Your task to perform on an android device: Open ESPN.com Image 0: 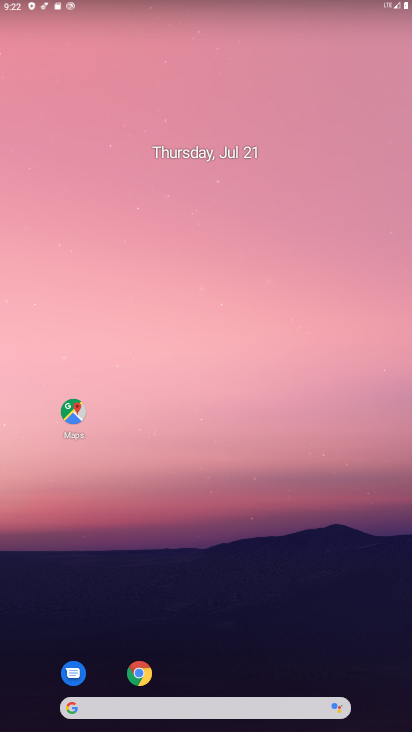
Step 0: click (145, 677)
Your task to perform on an android device: Open ESPN.com Image 1: 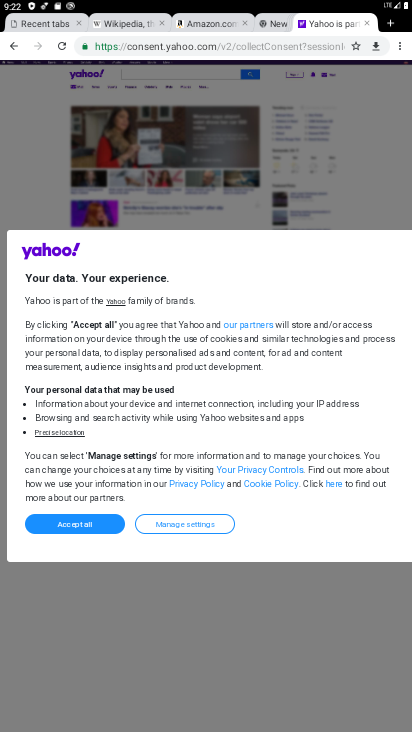
Step 1: click (395, 22)
Your task to perform on an android device: Open ESPN.com Image 2: 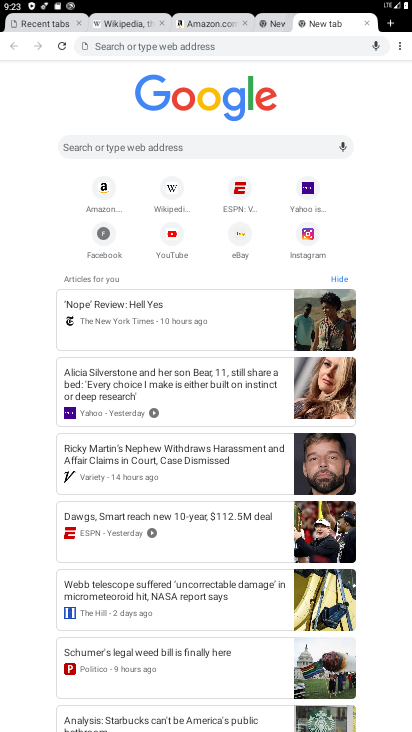
Step 2: click (240, 204)
Your task to perform on an android device: Open ESPN.com Image 3: 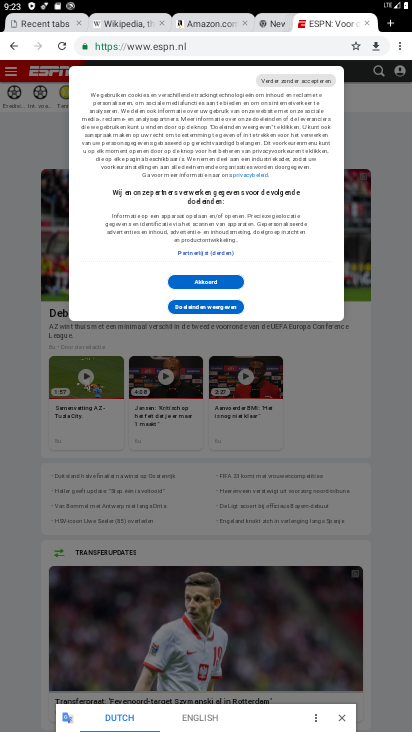
Step 3: task complete